Your task to perform on an android device: Open Yahoo.com Image 0: 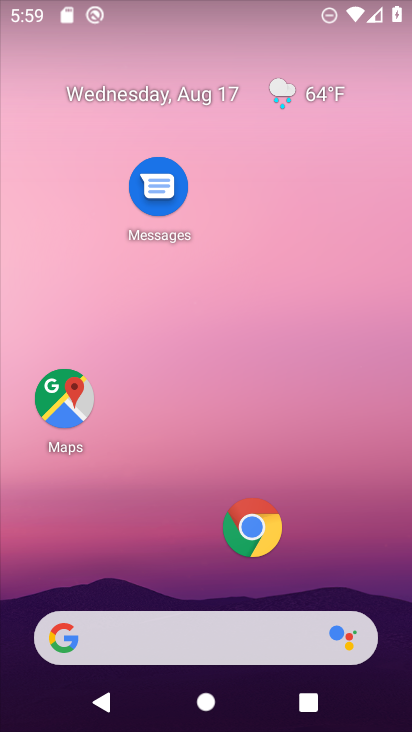
Step 0: click (229, 534)
Your task to perform on an android device: Open Yahoo.com Image 1: 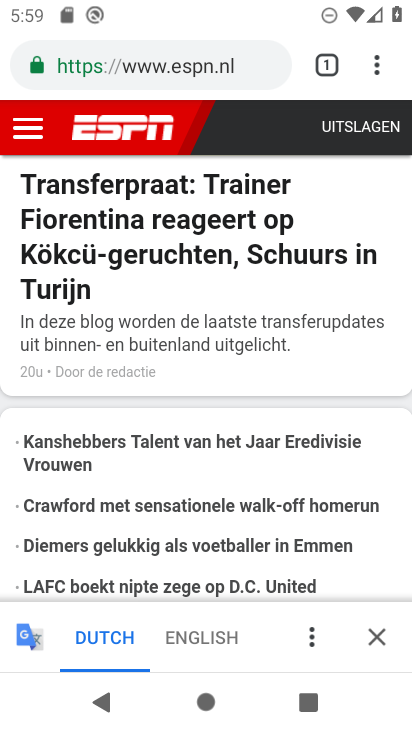
Step 1: click (325, 66)
Your task to perform on an android device: Open Yahoo.com Image 2: 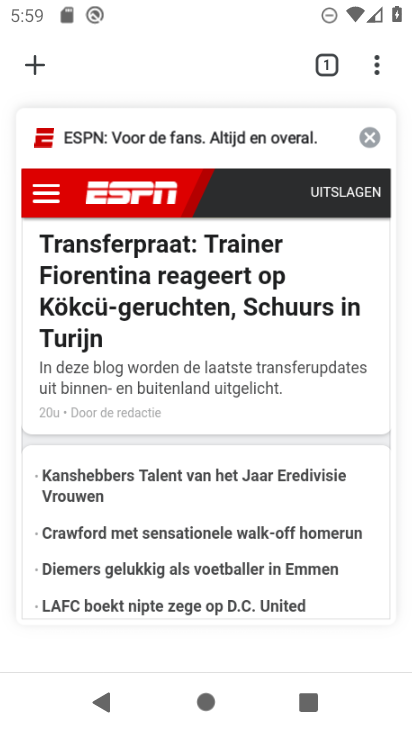
Step 2: click (366, 134)
Your task to perform on an android device: Open Yahoo.com Image 3: 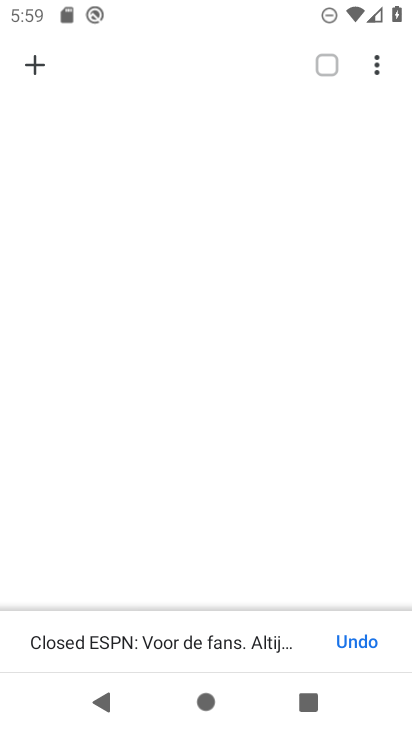
Step 3: click (33, 63)
Your task to perform on an android device: Open Yahoo.com Image 4: 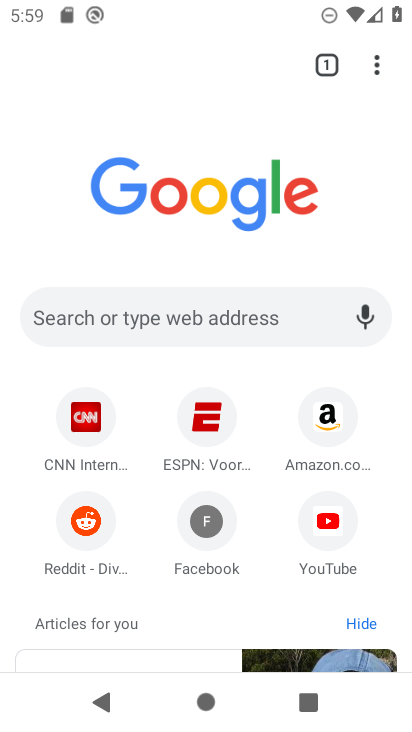
Step 4: drag from (173, 582) to (179, 270)
Your task to perform on an android device: Open Yahoo.com Image 5: 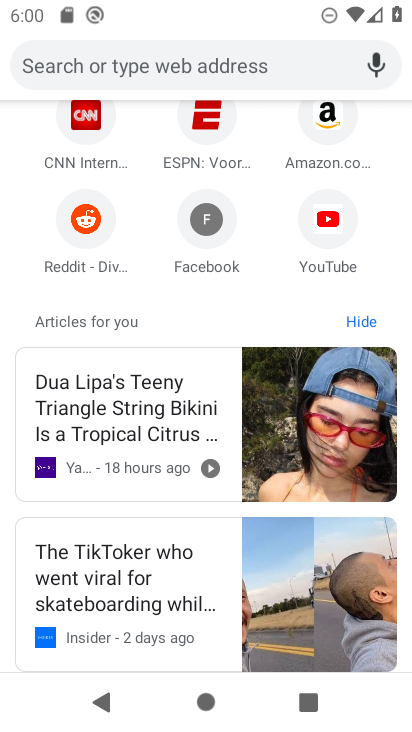
Step 5: click (134, 65)
Your task to perform on an android device: Open Yahoo.com Image 6: 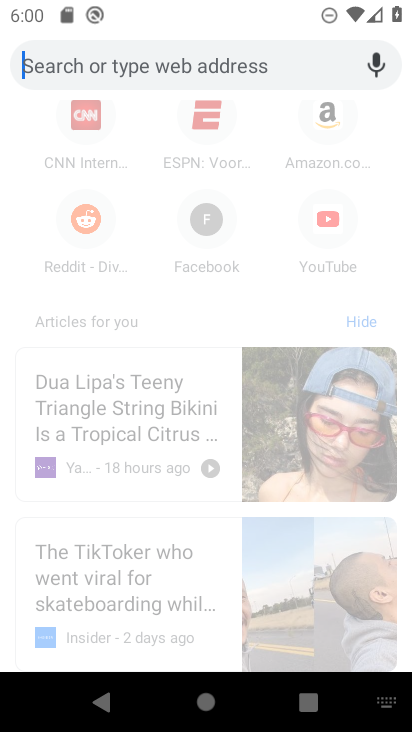
Step 6: type "Yahoo.com"
Your task to perform on an android device: Open Yahoo.com Image 7: 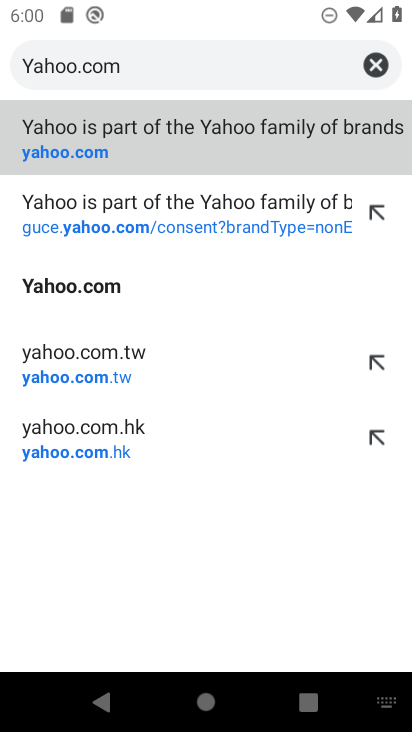
Step 7: click (140, 147)
Your task to perform on an android device: Open Yahoo.com Image 8: 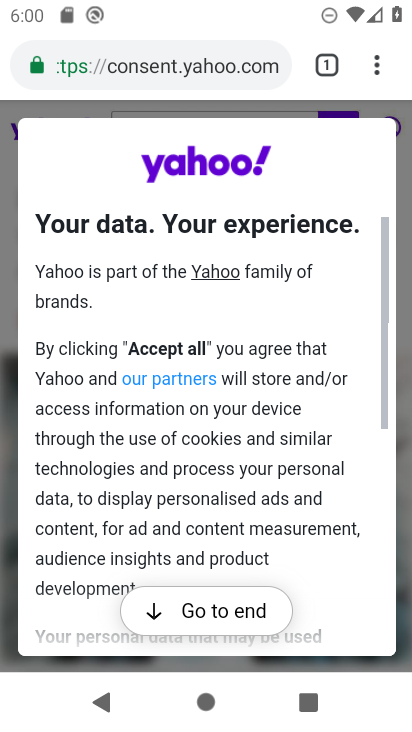
Step 8: task complete